Your task to perform on an android device: uninstall "TextNow: Call + Text Unlimited" Image 0: 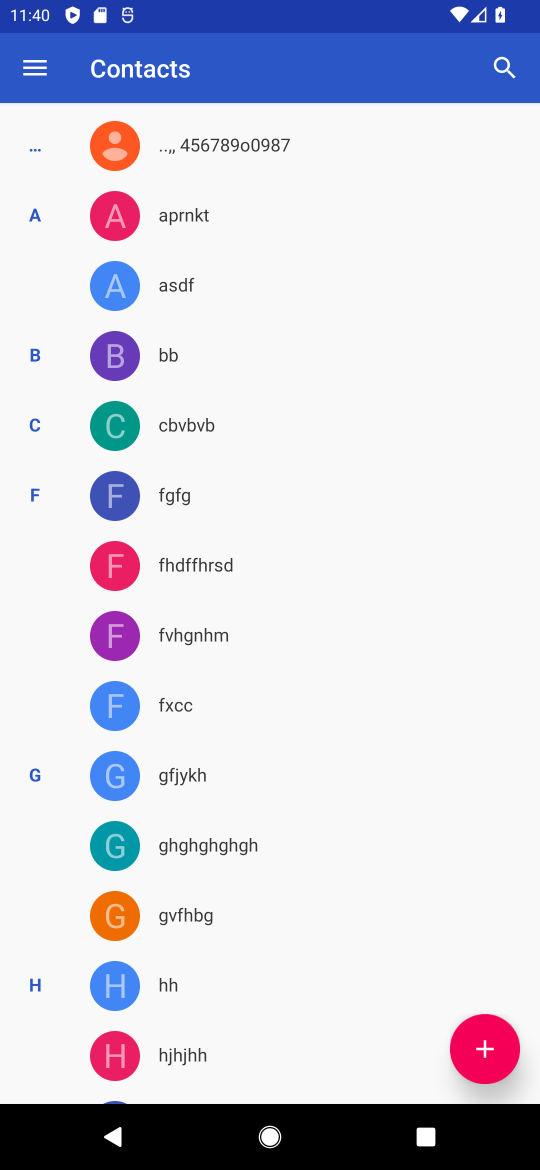
Step 0: press home button
Your task to perform on an android device: uninstall "TextNow: Call + Text Unlimited" Image 1: 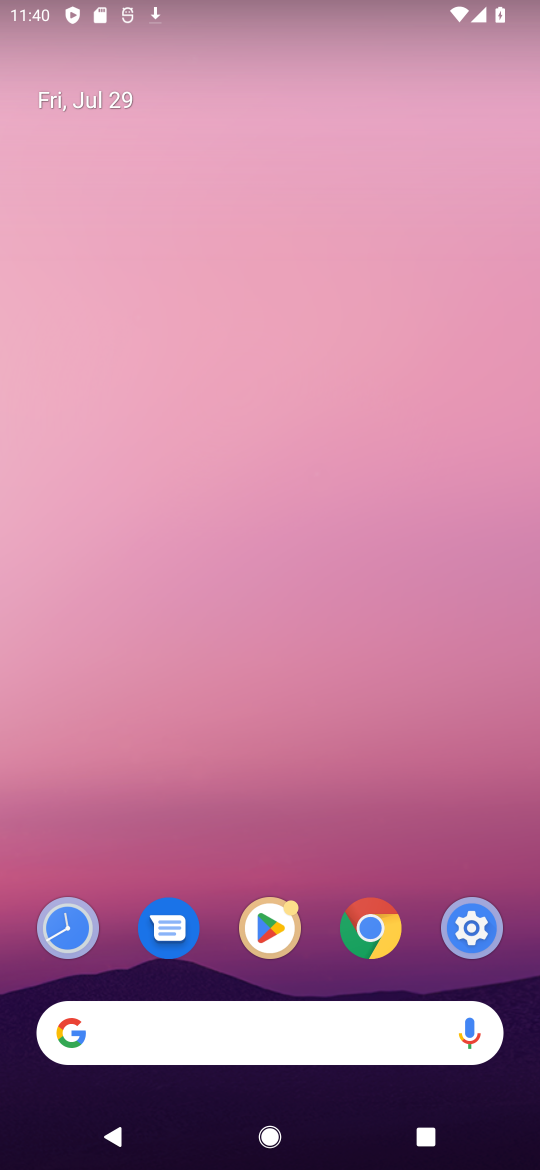
Step 1: drag from (336, 816) to (327, 88)
Your task to perform on an android device: uninstall "TextNow: Call + Text Unlimited" Image 2: 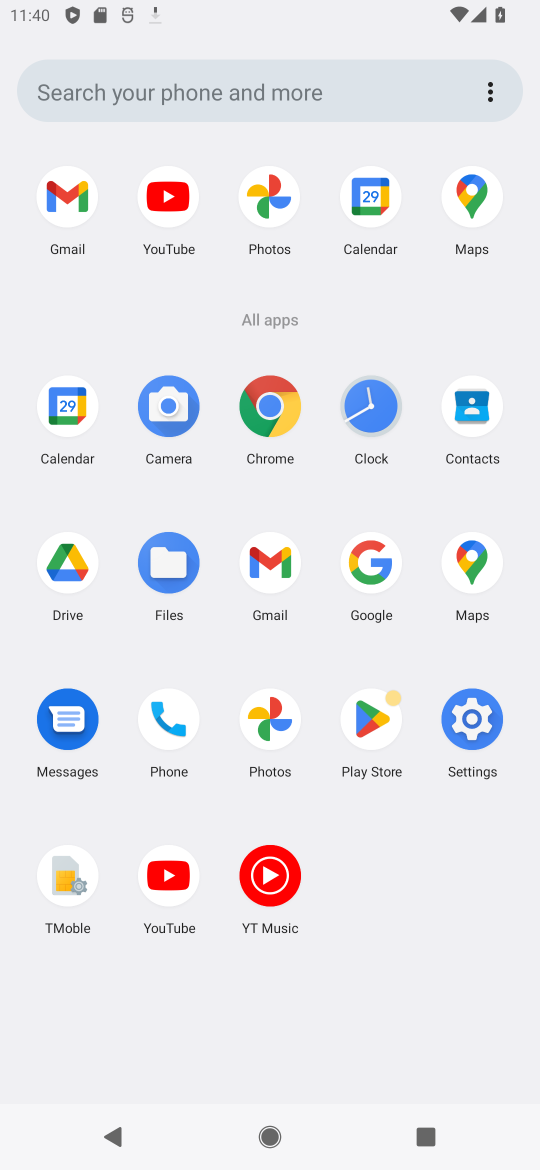
Step 2: click (364, 727)
Your task to perform on an android device: uninstall "TextNow: Call + Text Unlimited" Image 3: 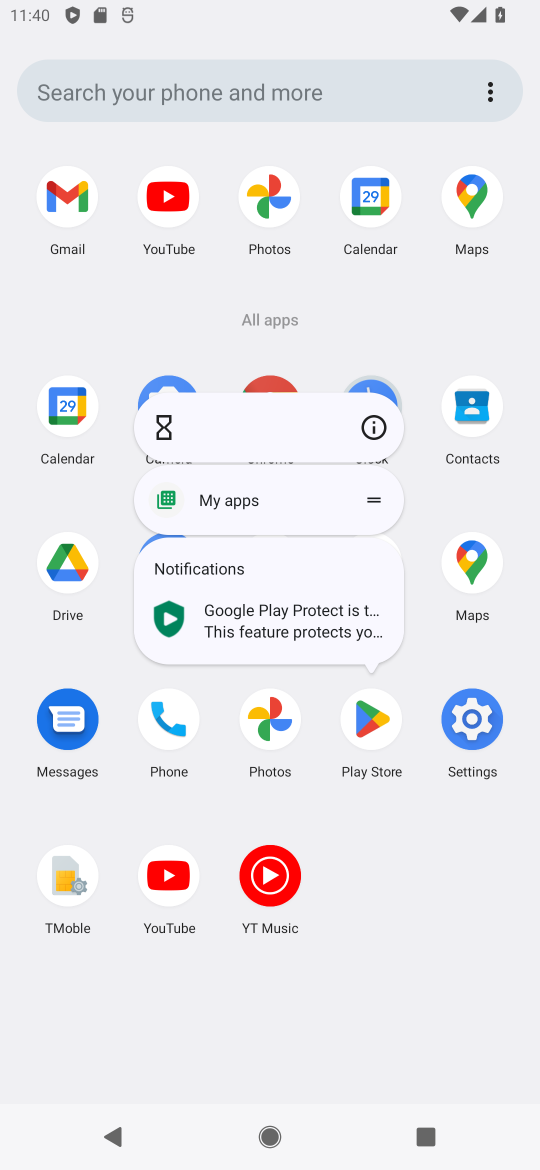
Step 3: click (371, 723)
Your task to perform on an android device: uninstall "TextNow: Call + Text Unlimited" Image 4: 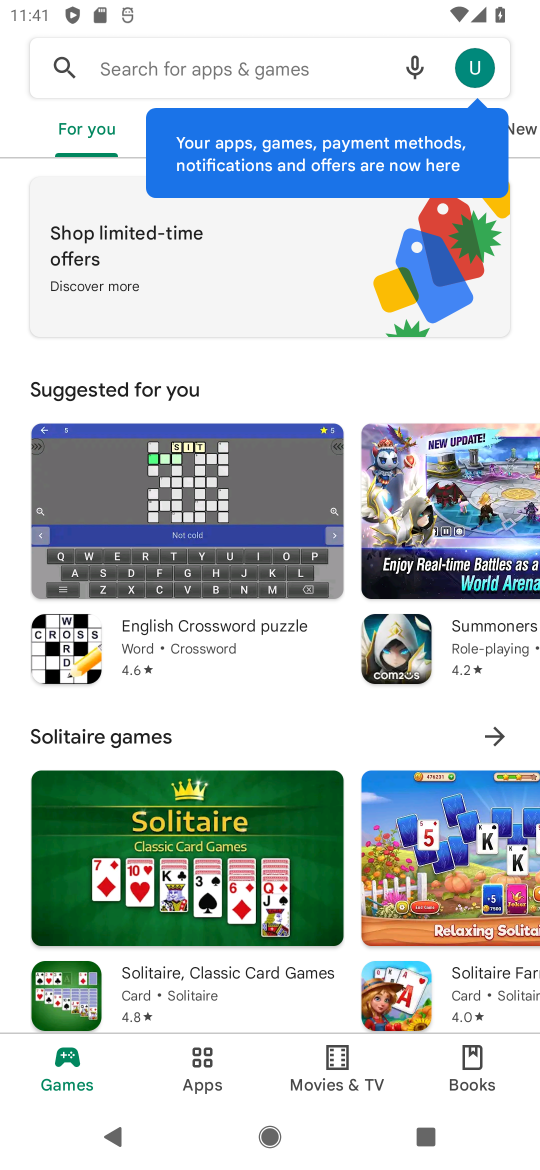
Step 4: click (274, 81)
Your task to perform on an android device: uninstall "TextNow: Call + Text Unlimited" Image 5: 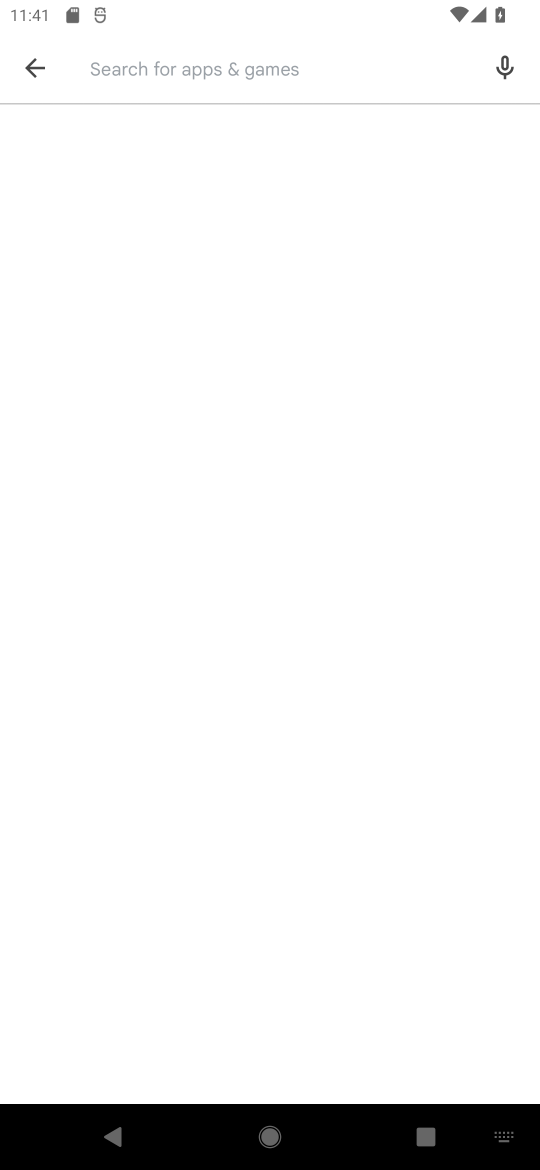
Step 5: type "TextNow: Call + Text Unlimited"
Your task to perform on an android device: uninstall "TextNow: Call + Text Unlimited" Image 6: 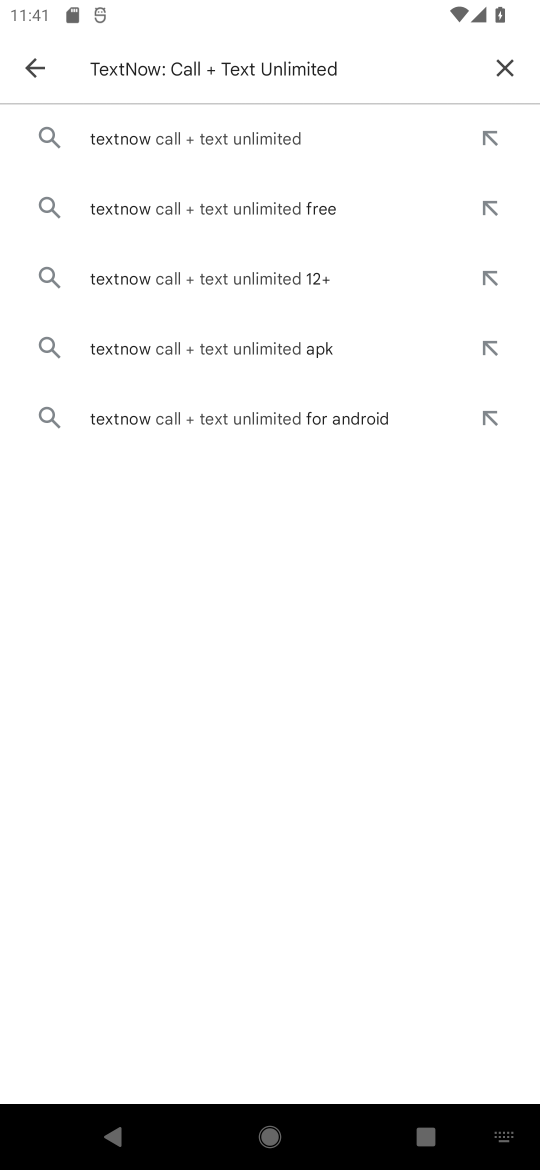
Step 6: press enter
Your task to perform on an android device: uninstall "TextNow: Call + Text Unlimited" Image 7: 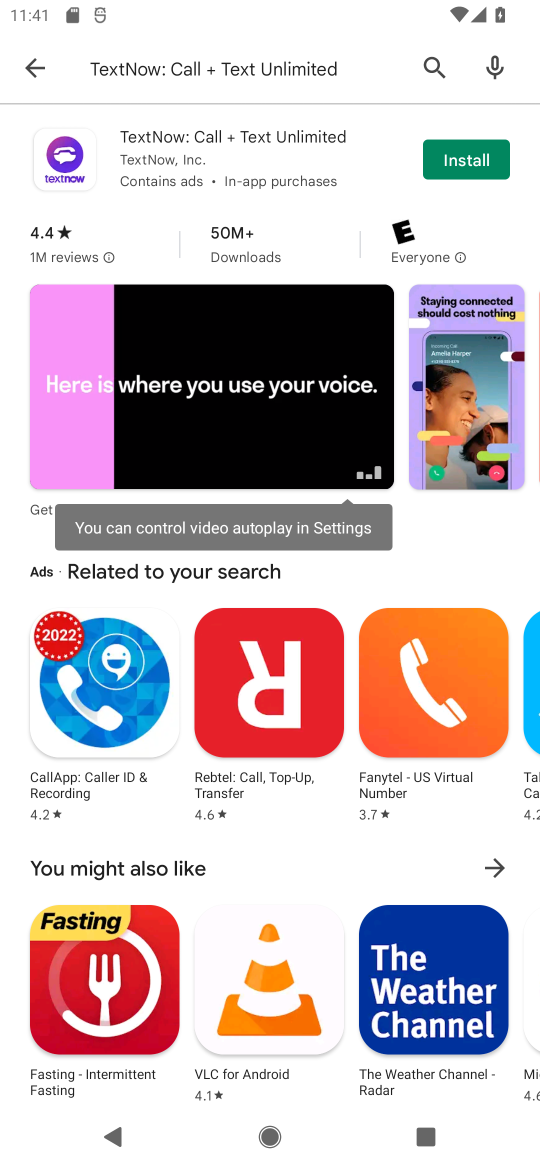
Step 7: task complete